Your task to perform on an android device: Clear the cart on walmart.com. Add energizer triple a to the cart on walmart.com Image 0: 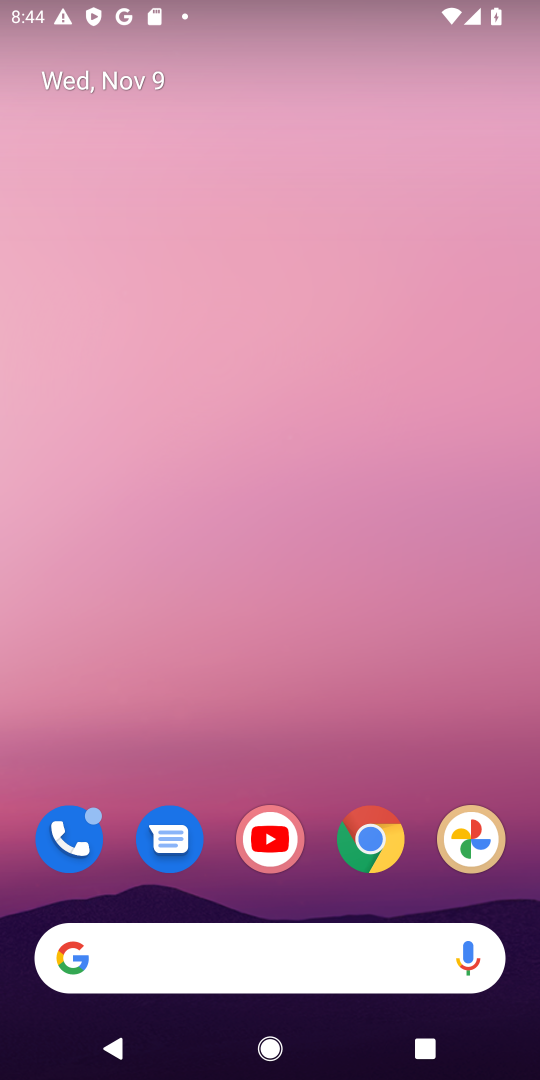
Step 0: drag from (226, 807) to (67, 188)
Your task to perform on an android device: Clear the cart on walmart.com. Add energizer triple a to the cart on walmart.com Image 1: 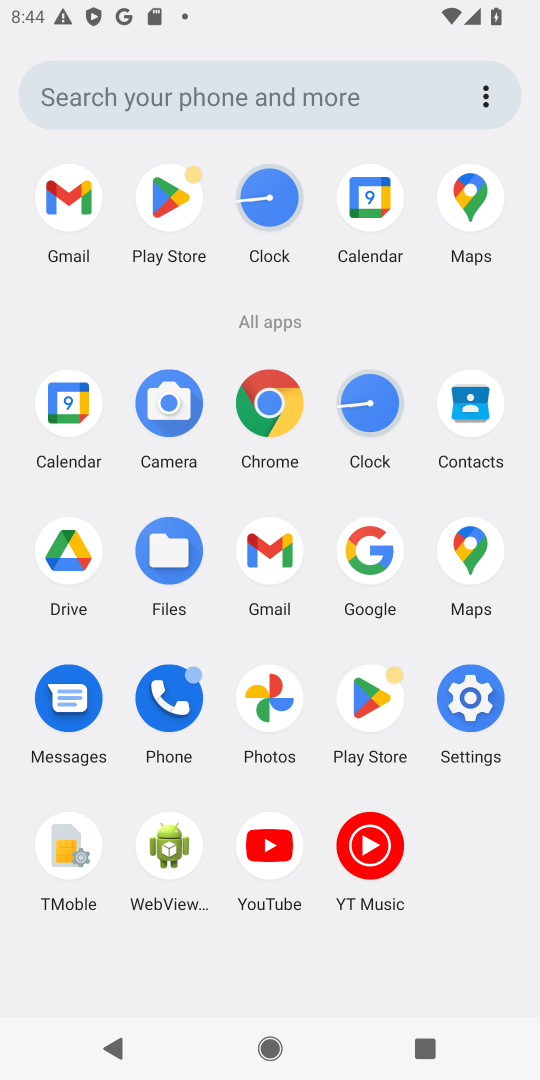
Step 1: click (275, 420)
Your task to perform on an android device: Clear the cart on walmart.com. Add energizer triple a to the cart on walmart.com Image 2: 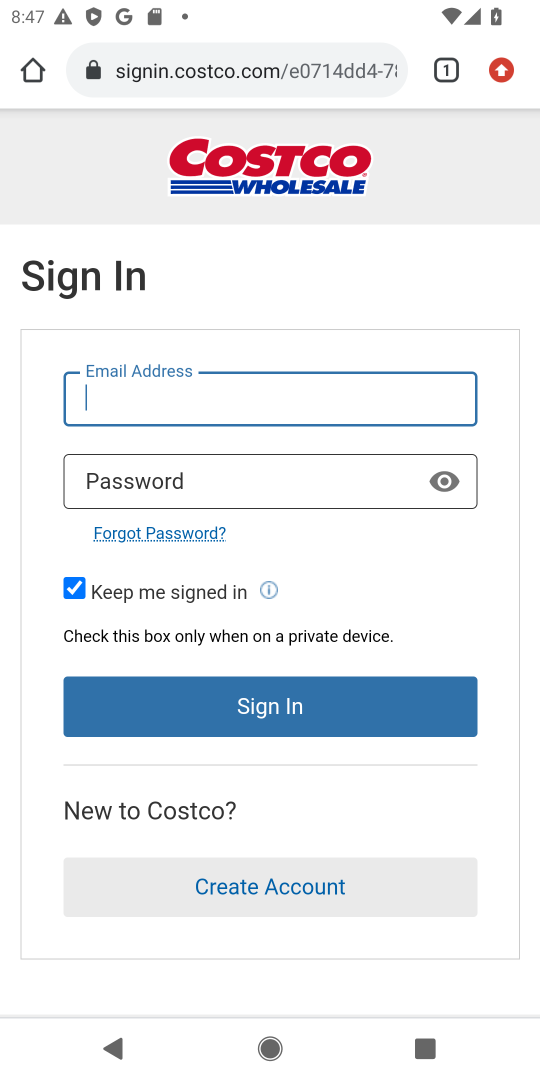
Step 2: click (169, 95)
Your task to perform on an android device: Clear the cart on walmart.com. Add energizer triple a to the cart on walmart.com Image 3: 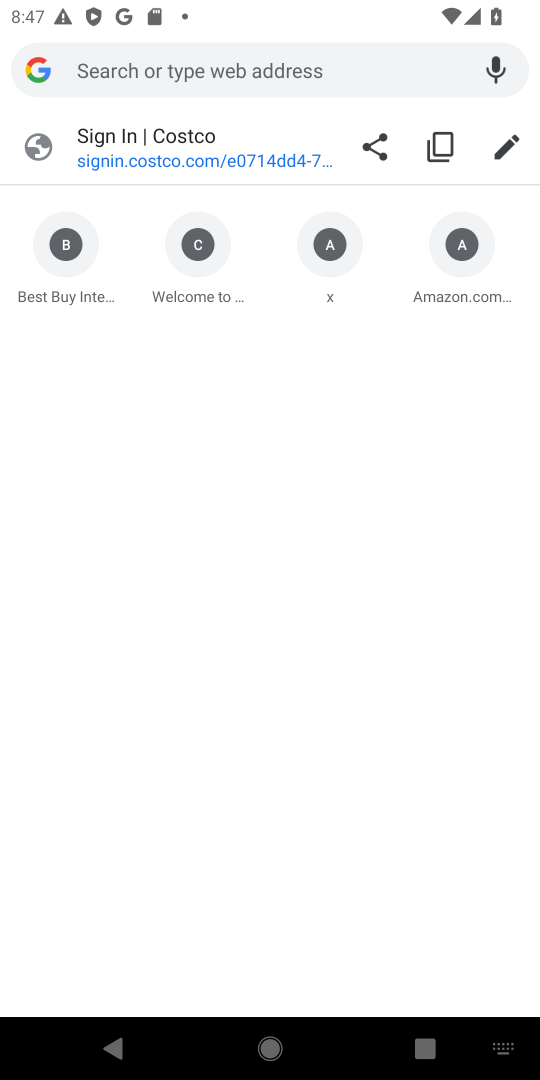
Step 3: type "walmart.com"
Your task to perform on an android device: Clear the cart on walmart.com. Add energizer triple a to the cart on walmart.com Image 4: 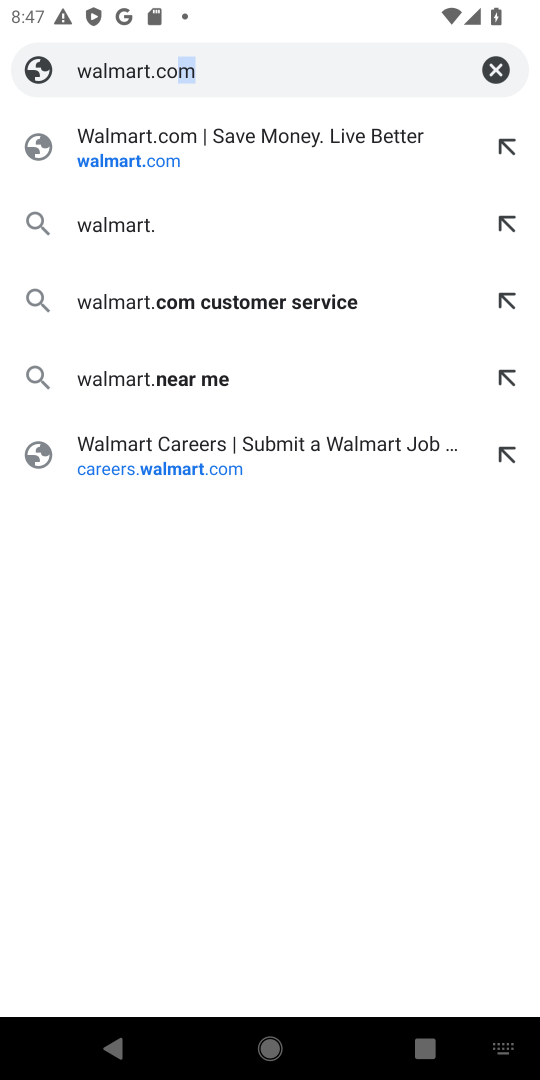
Step 4: press enter
Your task to perform on an android device: Clear the cart on walmart.com. Add energizer triple a to the cart on walmart.com Image 5: 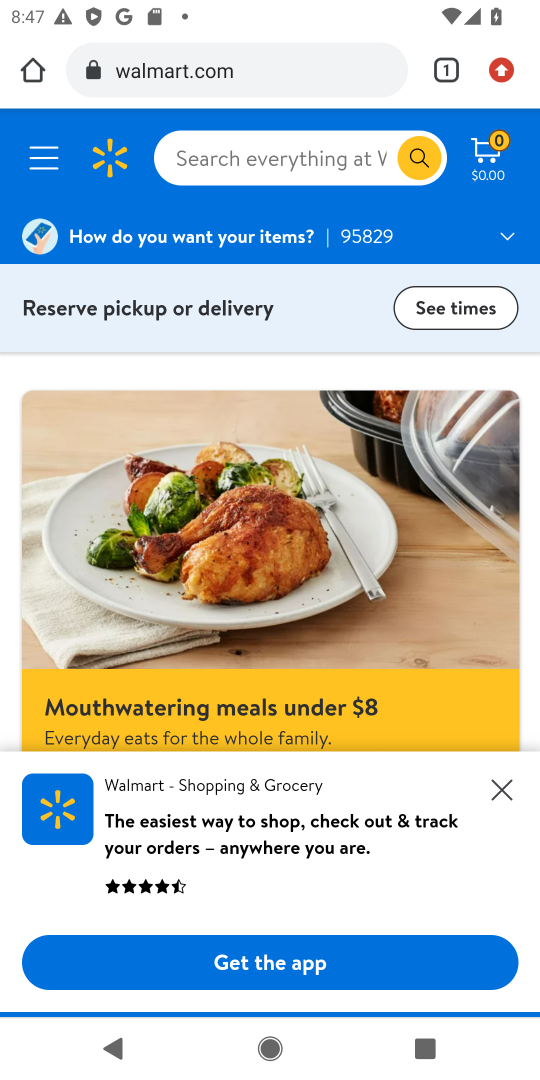
Step 5: click (289, 168)
Your task to perform on an android device: Clear the cart on walmart.com. Add energizer triple a to the cart on walmart.com Image 6: 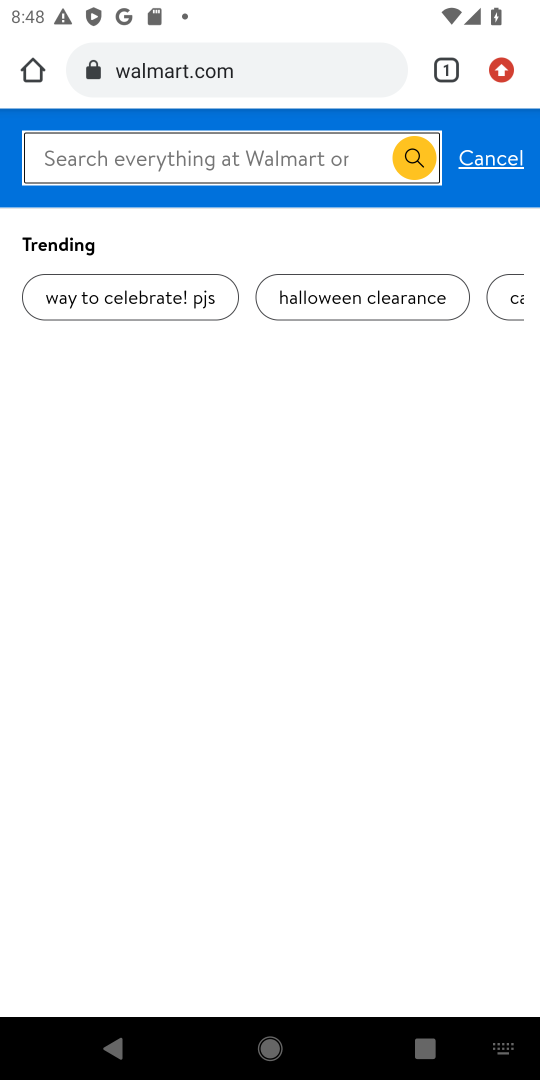
Step 6: type "energizer triple"
Your task to perform on an android device: Clear the cart on walmart.com. Add energizer triple a to the cart on walmart.com Image 7: 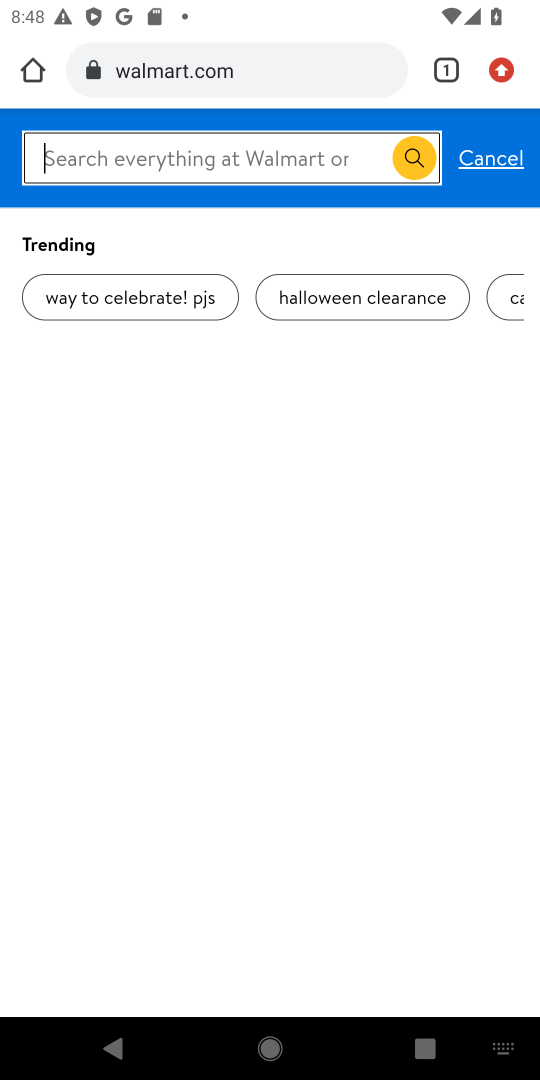
Step 7: press enter
Your task to perform on an android device: Clear the cart on walmart.com. Add energizer triple a to the cart on walmart.com Image 8: 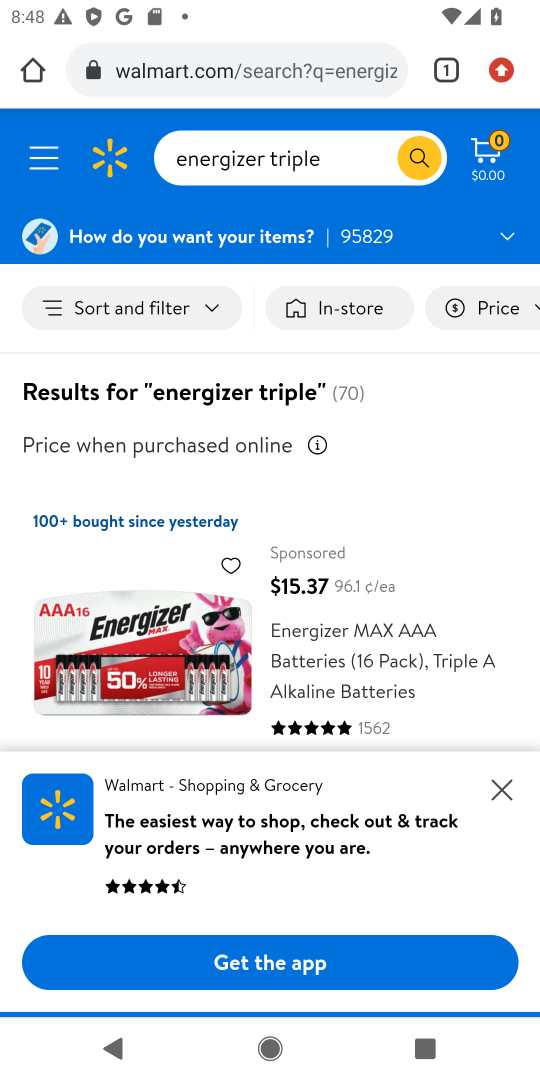
Step 8: click (497, 793)
Your task to perform on an android device: Clear the cart on walmart.com. Add energizer triple a to the cart on walmart.com Image 9: 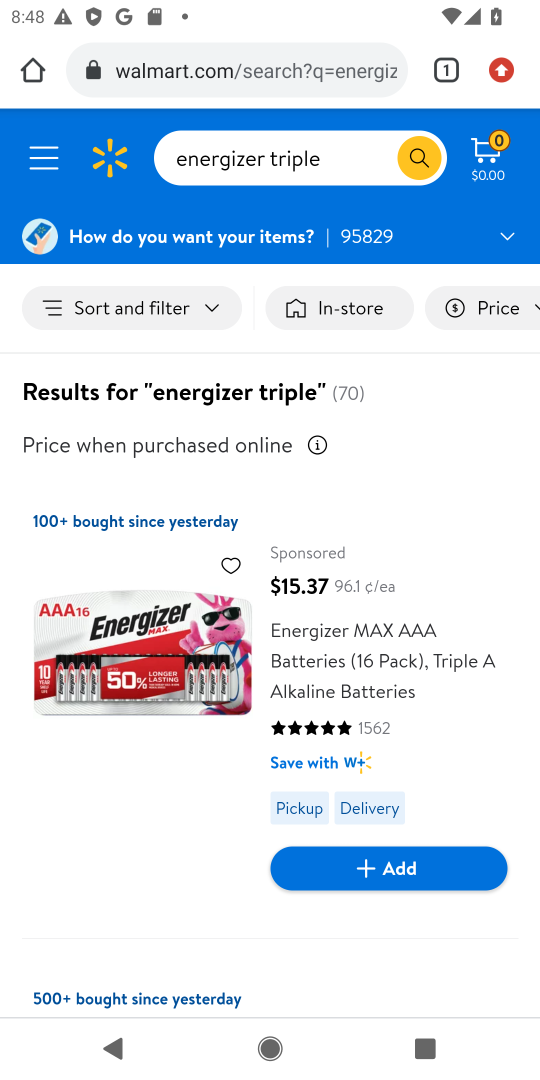
Step 9: drag from (276, 613) to (267, 287)
Your task to perform on an android device: Clear the cart on walmart.com. Add energizer triple a to the cart on walmart.com Image 10: 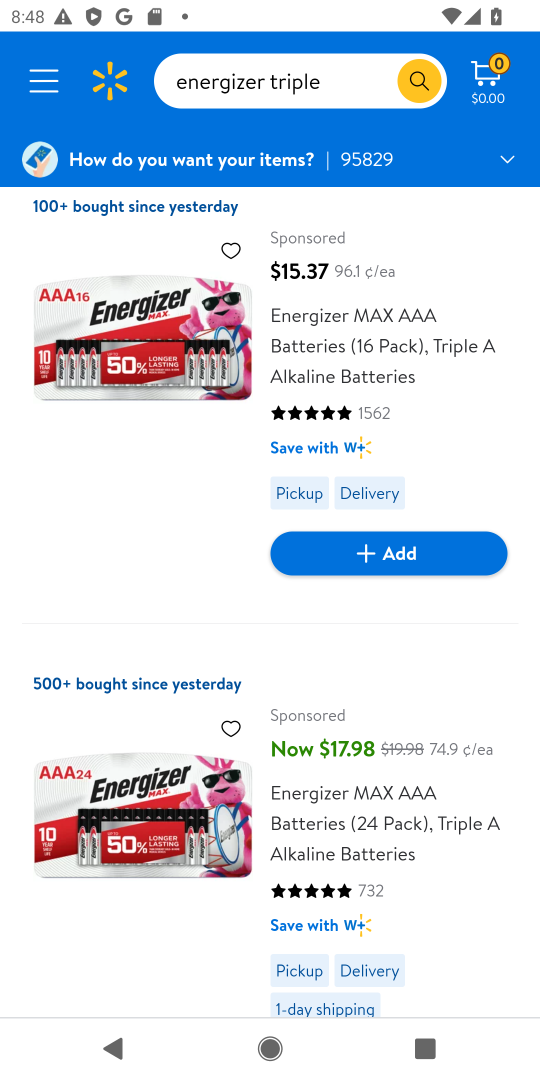
Step 10: click (372, 539)
Your task to perform on an android device: Clear the cart on walmart.com. Add energizer triple a to the cart on walmart.com Image 11: 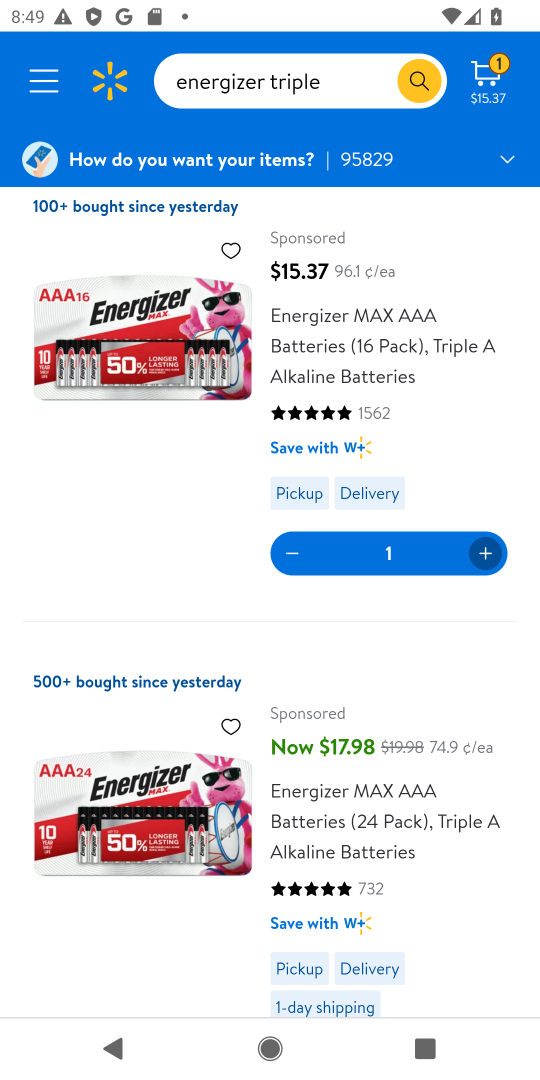
Step 11: task complete